Your task to perform on an android device: allow notifications from all sites in the chrome app Image 0: 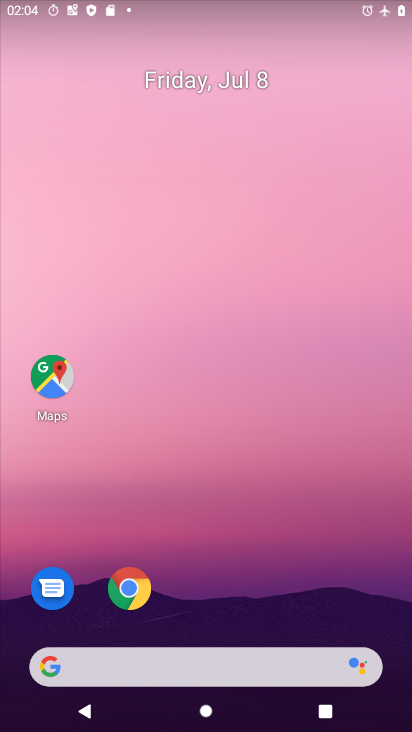
Step 0: drag from (261, 603) to (264, 52)
Your task to perform on an android device: allow notifications from all sites in the chrome app Image 1: 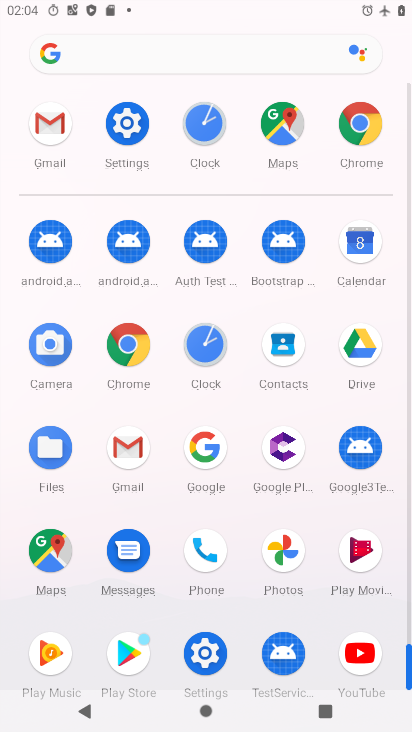
Step 1: click (145, 455)
Your task to perform on an android device: allow notifications from all sites in the chrome app Image 2: 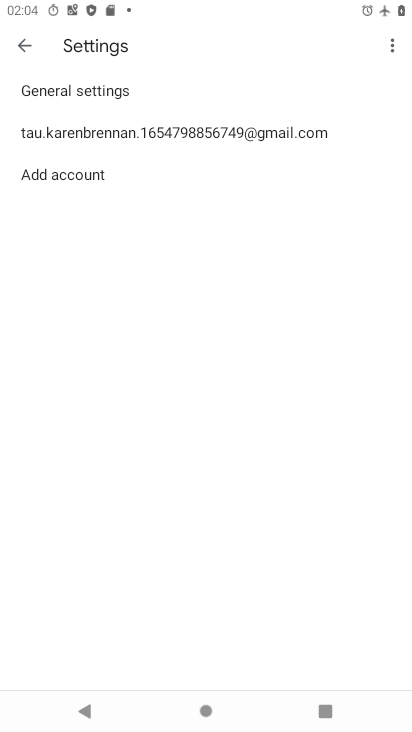
Step 2: drag from (299, 601) to (272, 322)
Your task to perform on an android device: allow notifications from all sites in the chrome app Image 3: 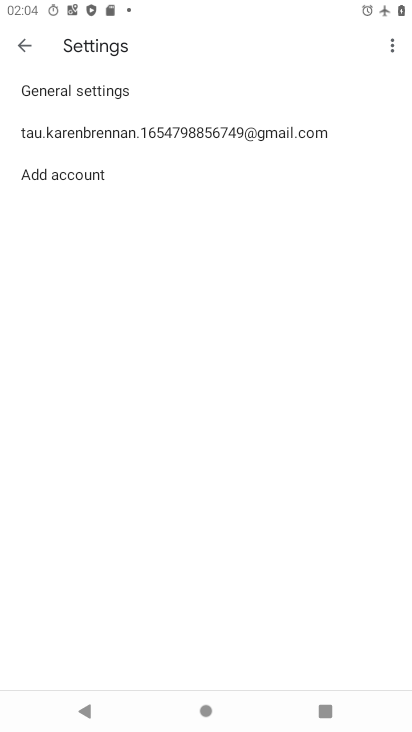
Step 3: click (97, 124)
Your task to perform on an android device: allow notifications from all sites in the chrome app Image 4: 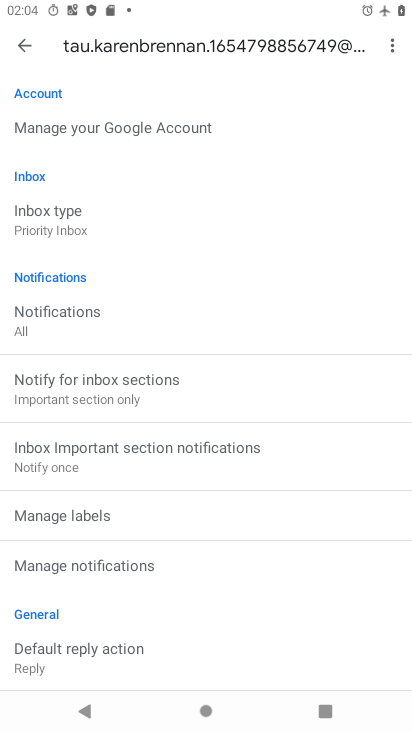
Step 4: click (181, 566)
Your task to perform on an android device: allow notifications from all sites in the chrome app Image 5: 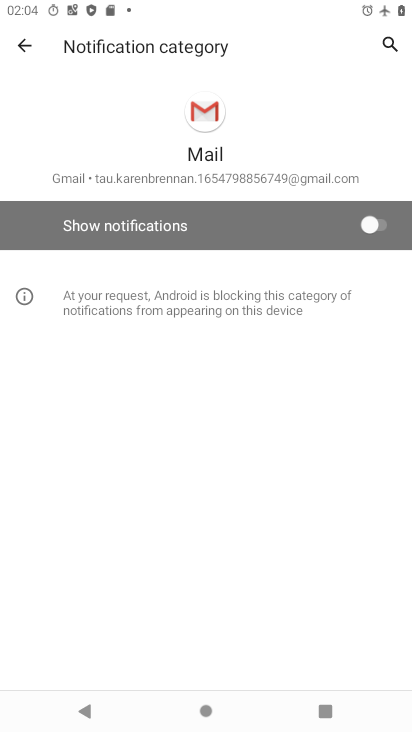
Step 5: drag from (113, 577) to (97, 255)
Your task to perform on an android device: allow notifications from all sites in the chrome app Image 6: 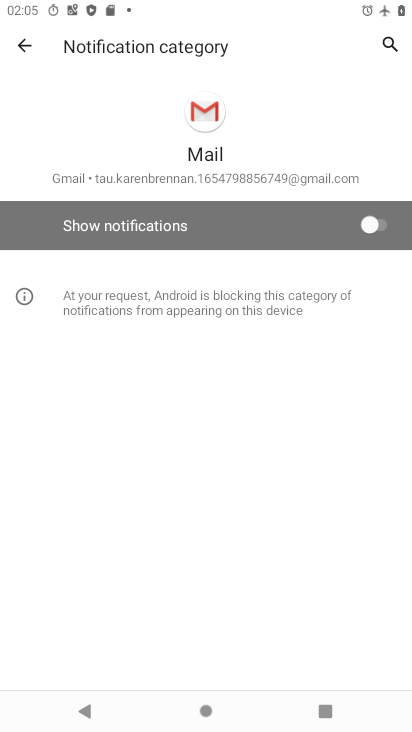
Step 6: click (234, 221)
Your task to perform on an android device: allow notifications from all sites in the chrome app Image 7: 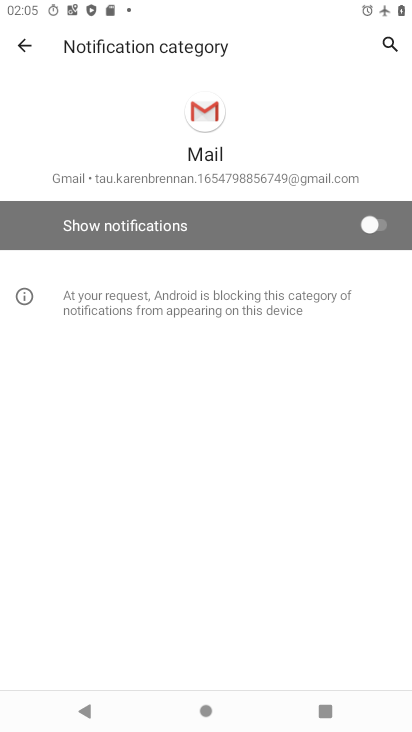
Step 7: click (385, 212)
Your task to perform on an android device: allow notifications from all sites in the chrome app Image 8: 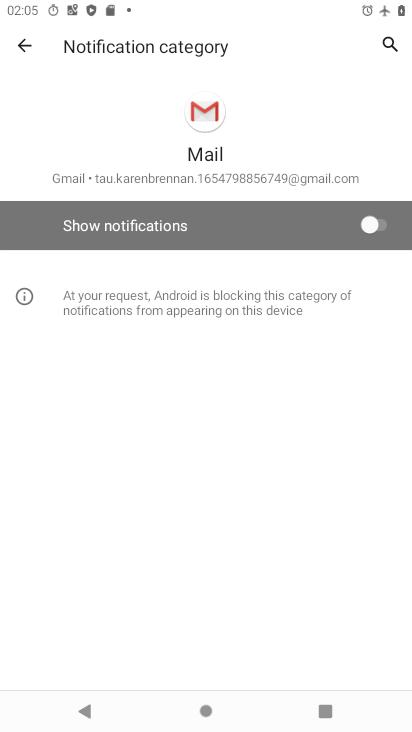
Step 8: task complete